Your task to perform on an android device: open app "Pandora - Music & Podcasts" Image 0: 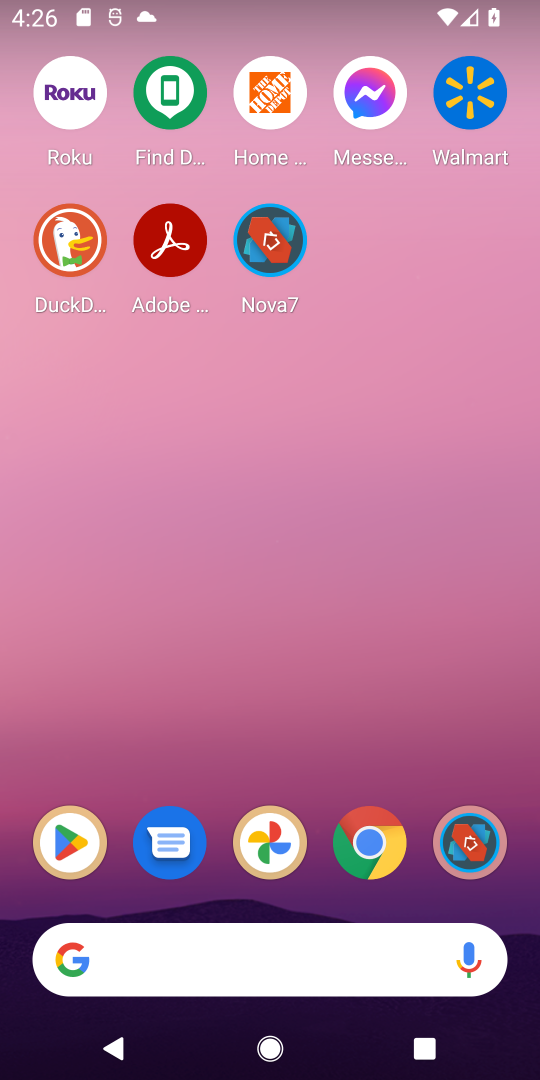
Step 0: drag from (313, 659) to (338, 0)
Your task to perform on an android device: open app "Pandora - Music & Podcasts" Image 1: 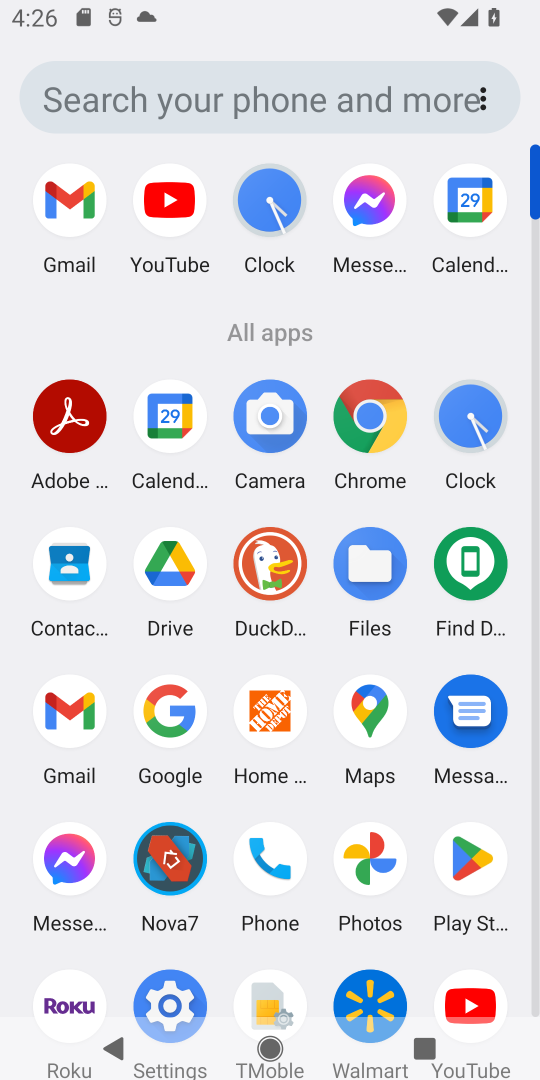
Step 1: click (480, 857)
Your task to perform on an android device: open app "Pandora - Music & Podcasts" Image 2: 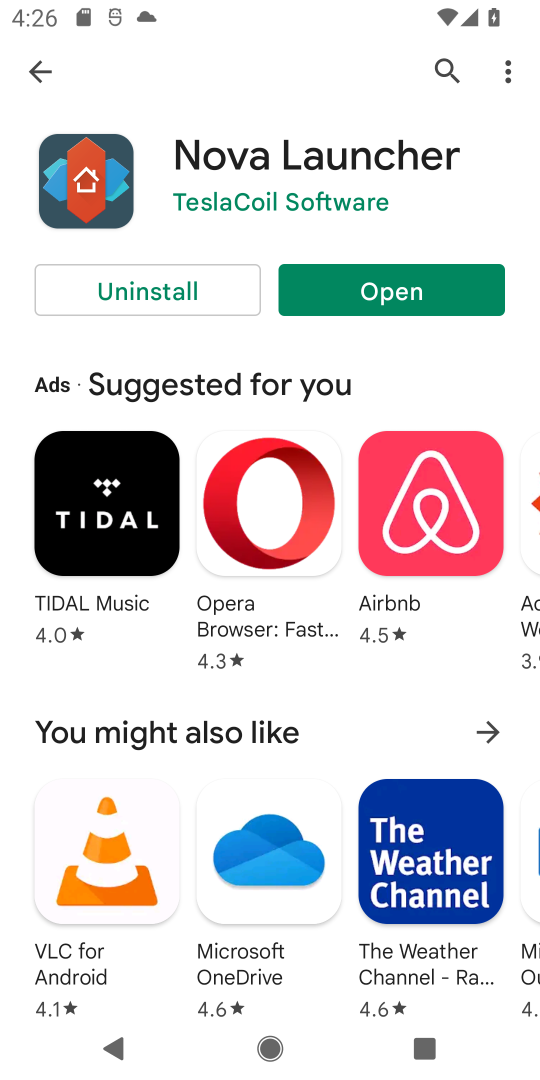
Step 2: click (445, 69)
Your task to perform on an android device: open app "Pandora - Music & Podcasts" Image 3: 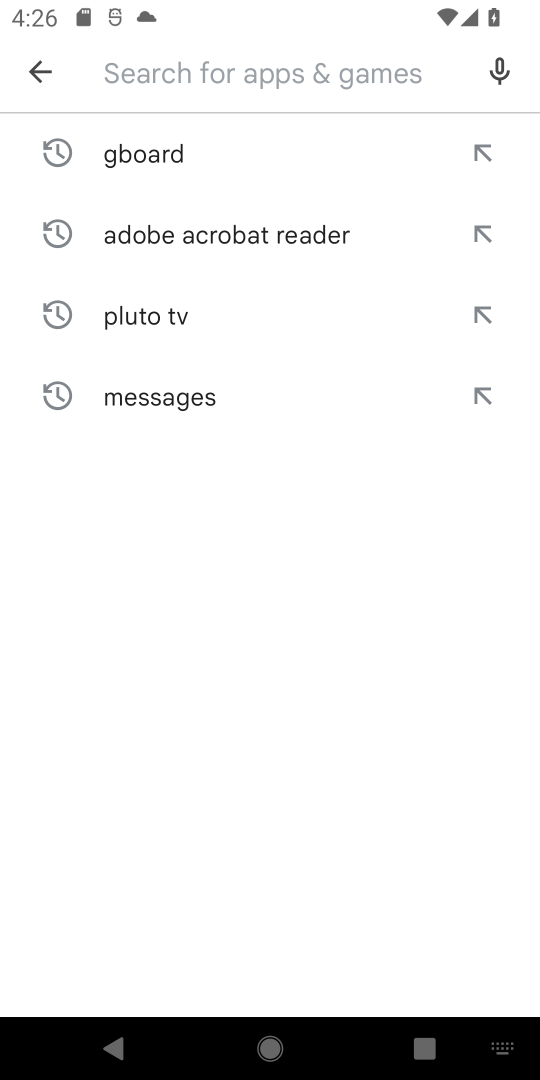
Step 3: click (115, 60)
Your task to perform on an android device: open app "Pandora - Music & Podcasts" Image 4: 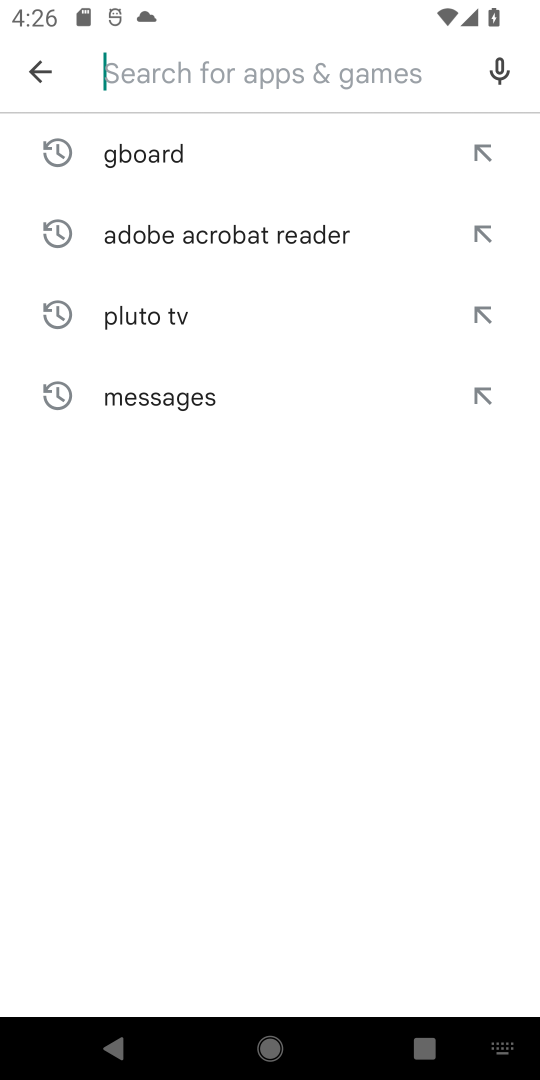
Step 4: type ""
Your task to perform on an android device: open app "Pandora - Music & Podcasts" Image 5: 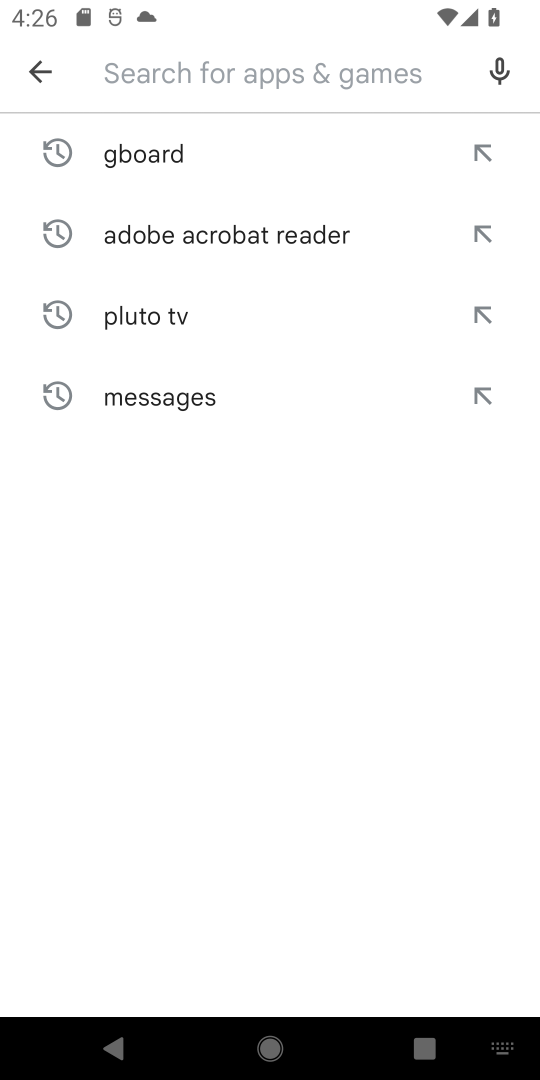
Step 5: type "pandora"
Your task to perform on an android device: open app "Pandora - Music & Podcasts" Image 6: 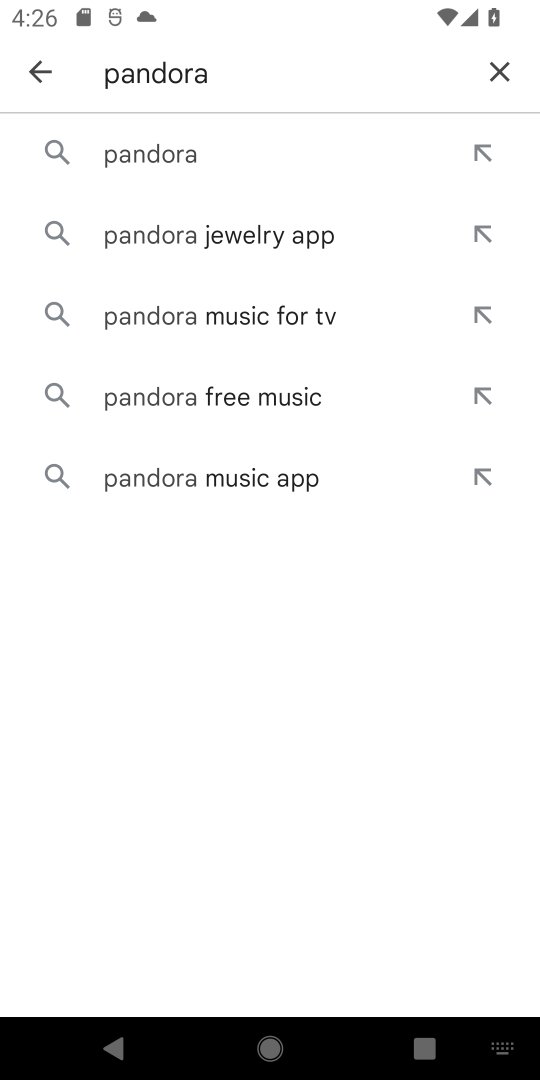
Step 6: click (267, 153)
Your task to perform on an android device: open app "Pandora - Music & Podcasts" Image 7: 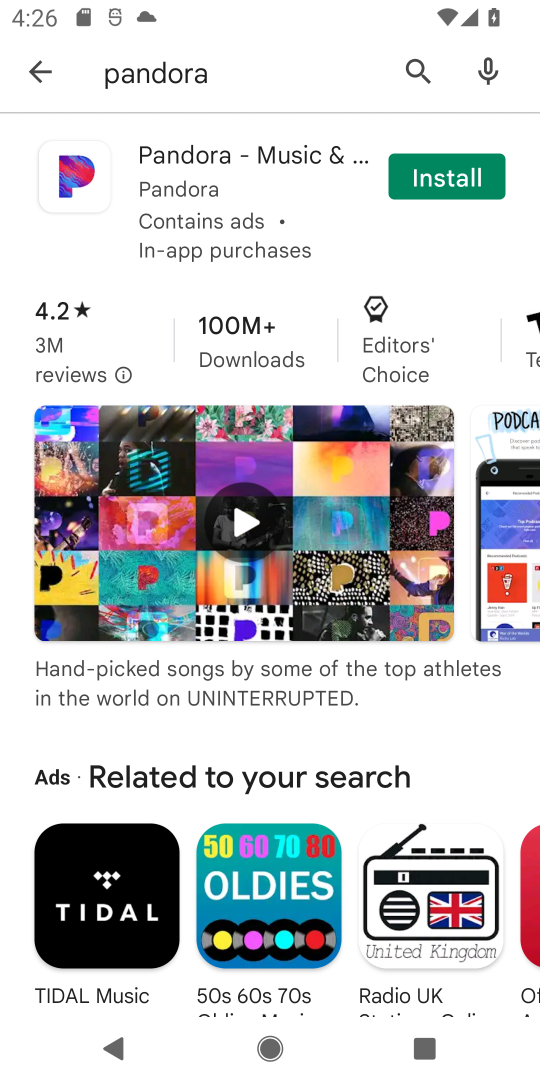
Step 7: click (426, 178)
Your task to perform on an android device: open app "Pandora - Music & Podcasts" Image 8: 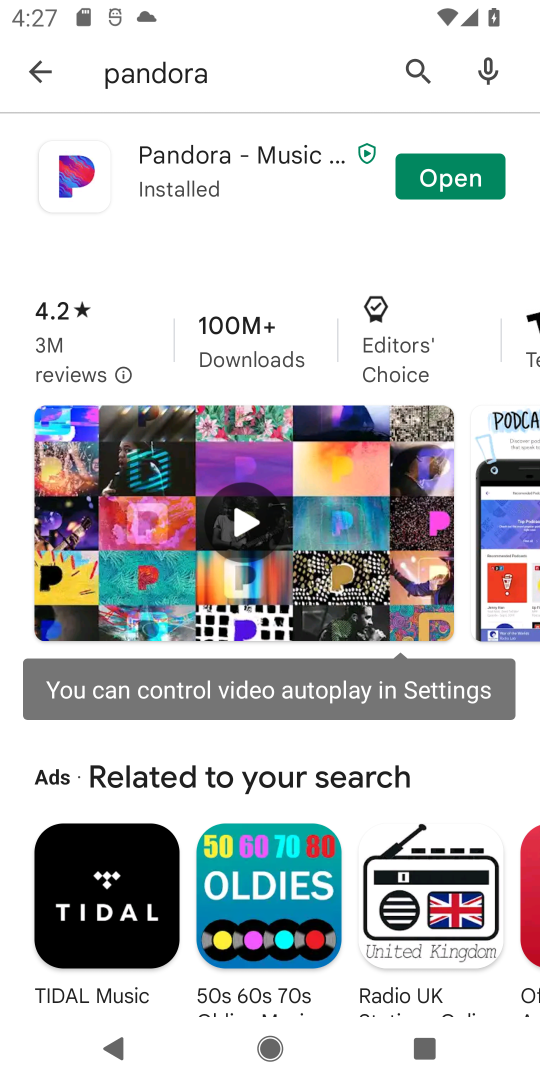
Step 8: click (447, 181)
Your task to perform on an android device: open app "Pandora - Music & Podcasts" Image 9: 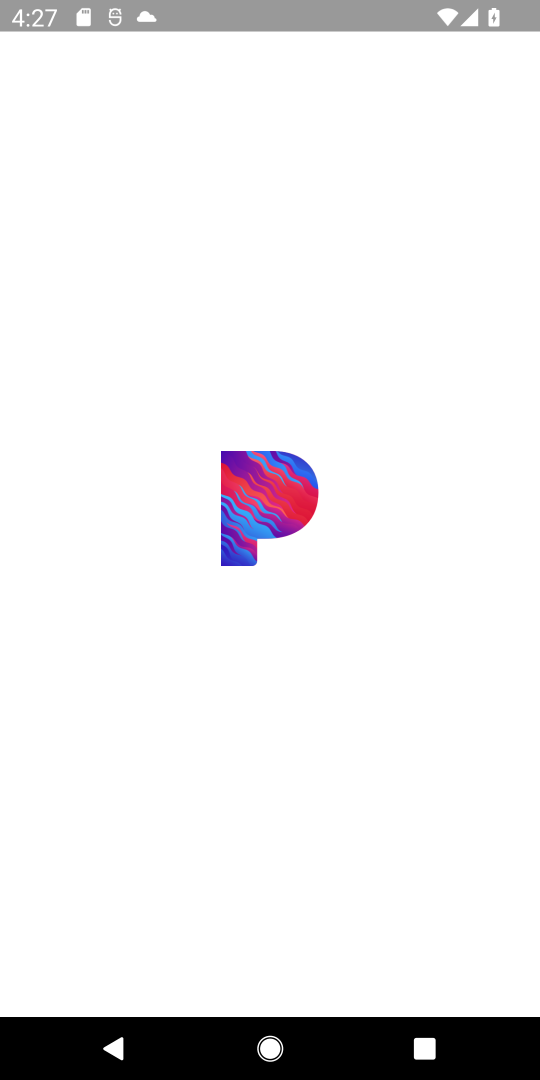
Step 9: task complete